Your task to perform on an android device: Show the shopping cart on amazon.com. Search for bose quietcomfort 35 on amazon.com, select the first entry, add it to the cart, then select checkout. Image 0: 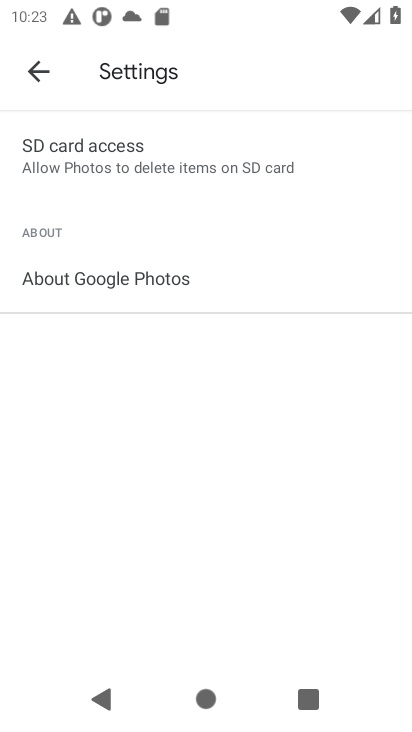
Step 0: task complete